Your task to perform on an android device: turn on the 12-hour format for clock Image 0: 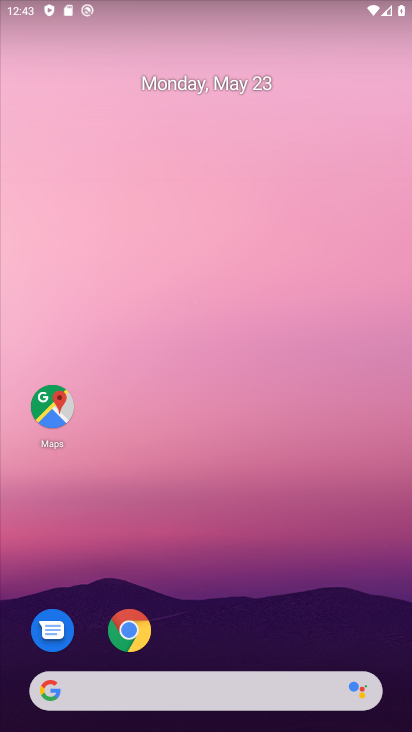
Step 0: drag from (298, 598) to (281, 164)
Your task to perform on an android device: turn on the 12-hour format for clock Image 1: 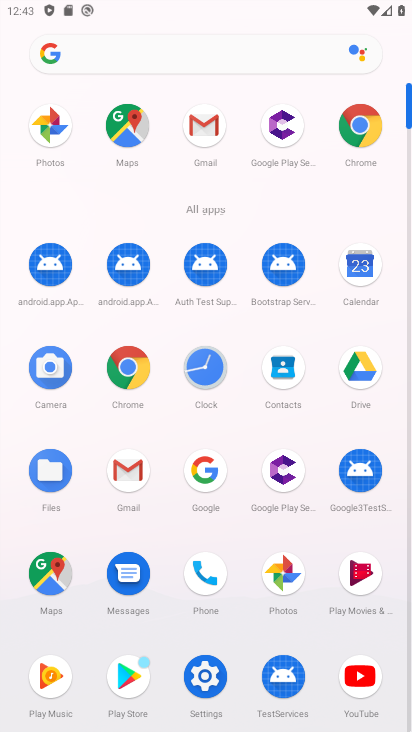
Step 1: click (214, 363)
Your task to perform on an android device: turn on the 12-hour format for clock Image 2: 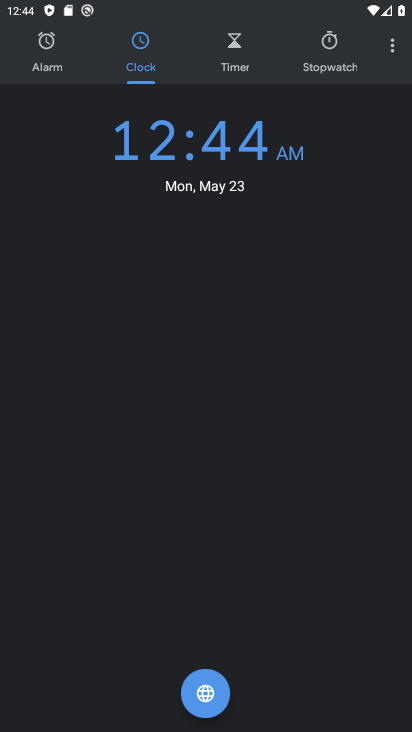
Step 2: drag from (394, 51) to (284, 92)
Your task to perform on an android device: turn on the 12-hour format for clock Image 3: 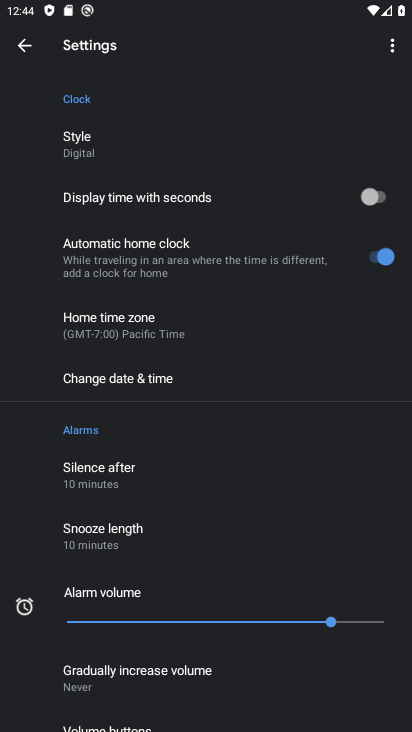
Step 3: click (215, 369)
Your task to perform on an android device: turn on the 12-hour format for clock Image 4: 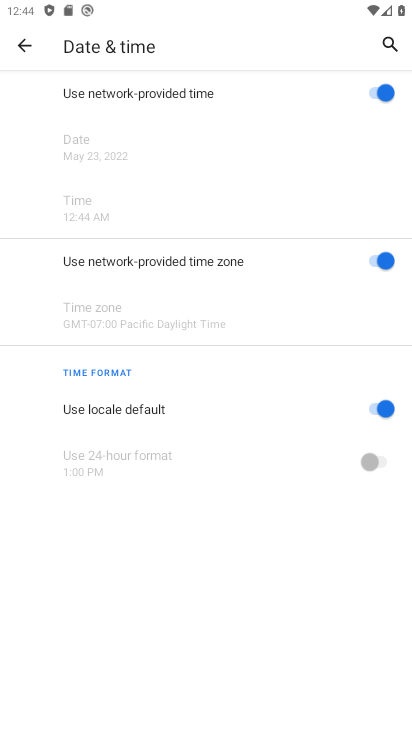
Step 4: task complete